Your task to perform on an android device: Turn off the flashlight Image 0: 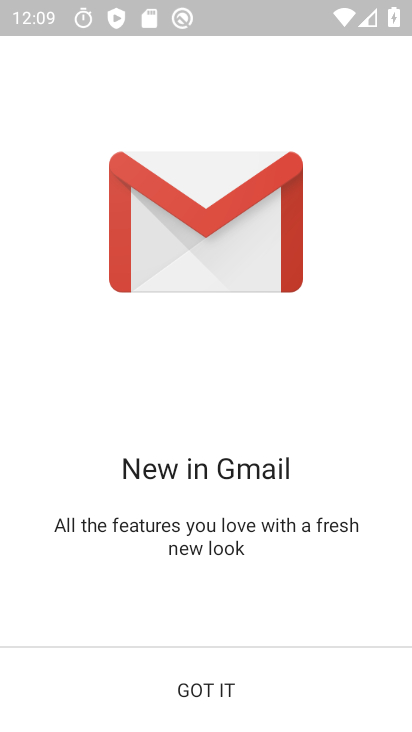
Step 0: press back button
Your task to perform on an android device: Turn off the flashlight Image 1: 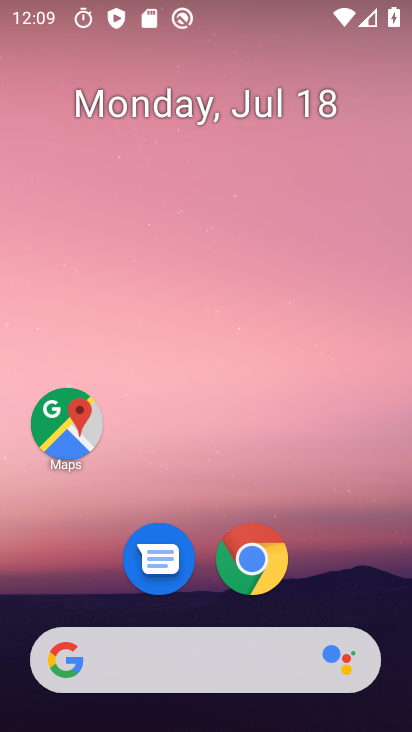
Step 1: drag from (68, 527) to (179, 46)
Your task to perform on an android device: Turn off the flashlight Image 2: 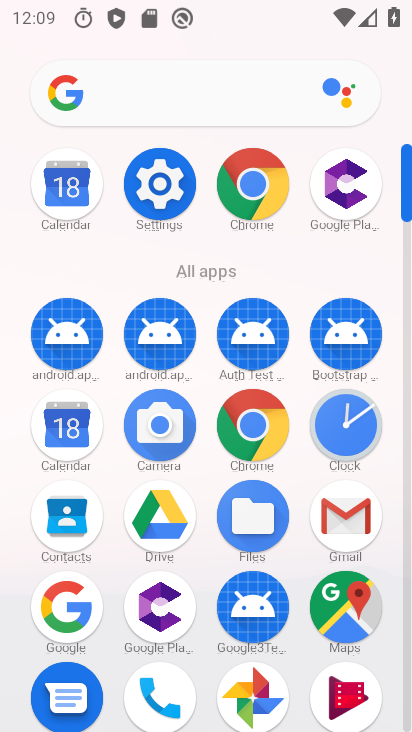
Step 2: click (153, 198)
Your task to perform on an android device: Turn off the flashlight Image 3: 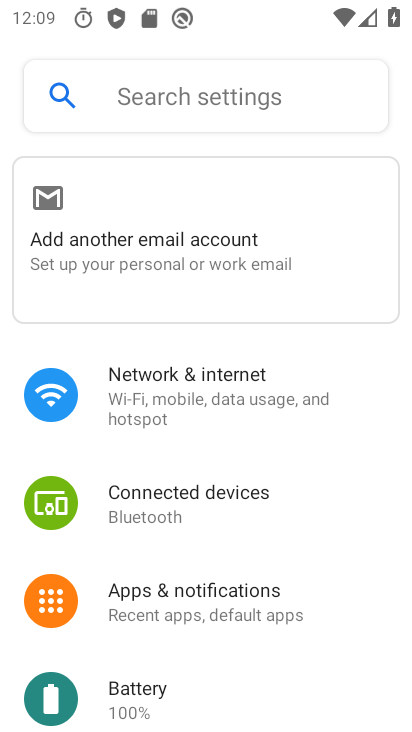
Step 3: click (168, 87)
Your task to perform on an android device: Turn off the flashlight Image 4: 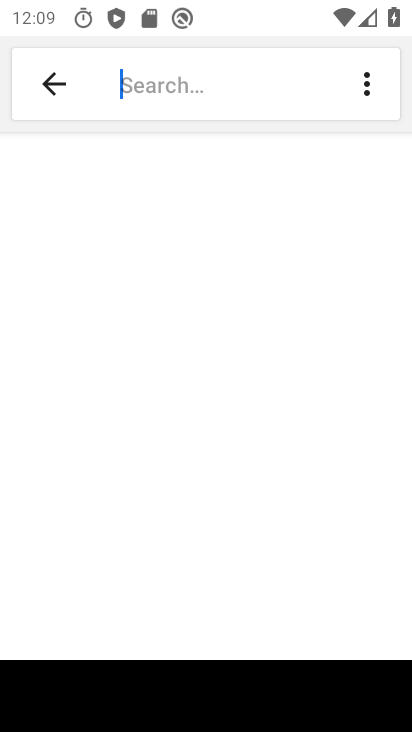
Step 4: type "flashlight"
Your task to perform on an android device: Turn off the flashlight Image 5: 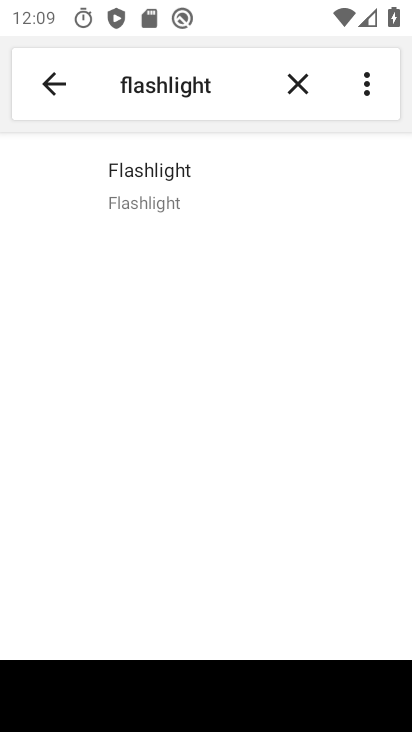
Step 5: click (159, 184)
Your task to perform on an android device: Turn off the flashlight Image 6: 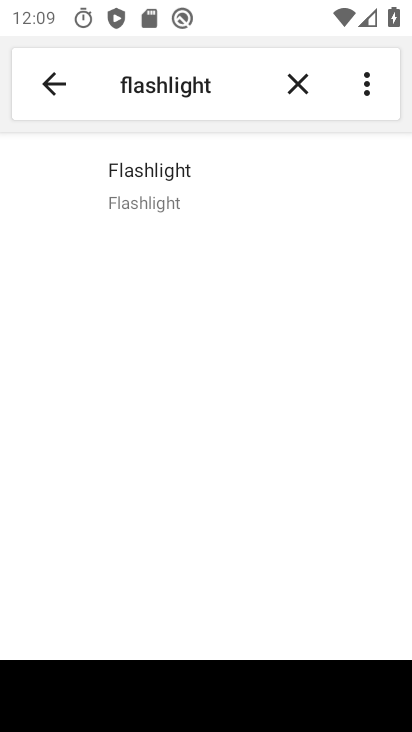
Step 6: click (156, 154)
Your task to perform on an android device: Turn off the flashlight Image 7: 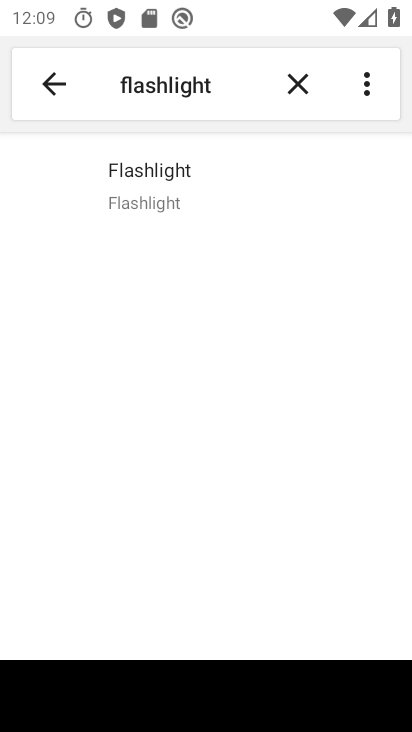
Step 7: task complete